Your task to perform on an android device: Go to accessibility settings Image 0: 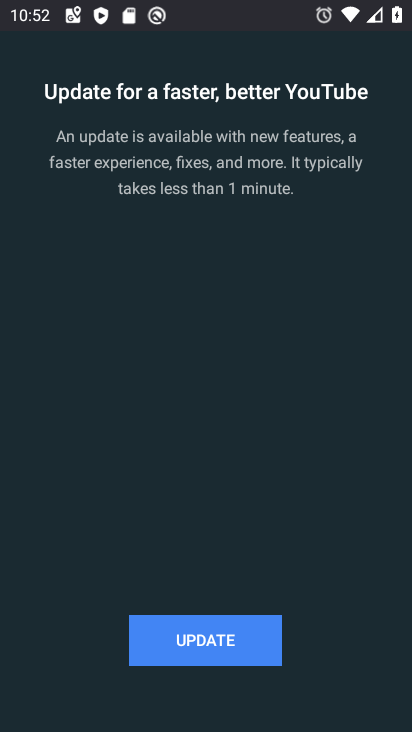
Step 0: press back button
Your task to perform on an android device: Go to accessibility settings Image 1: 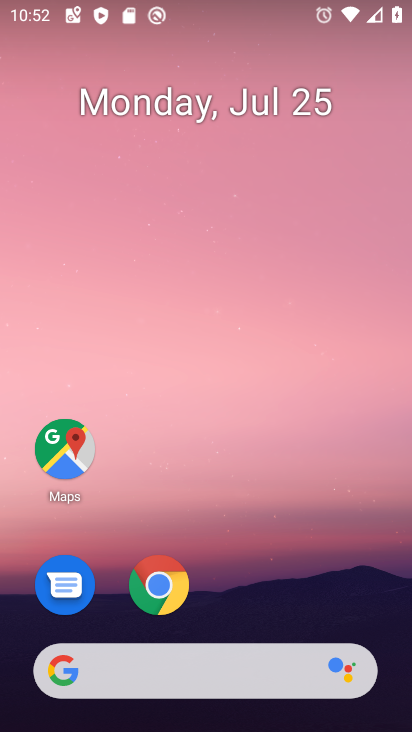
Step 1: drag from (187, 647) to (354, 80)
Your task to perform on an android device: Go to accessibility settings Image 2: 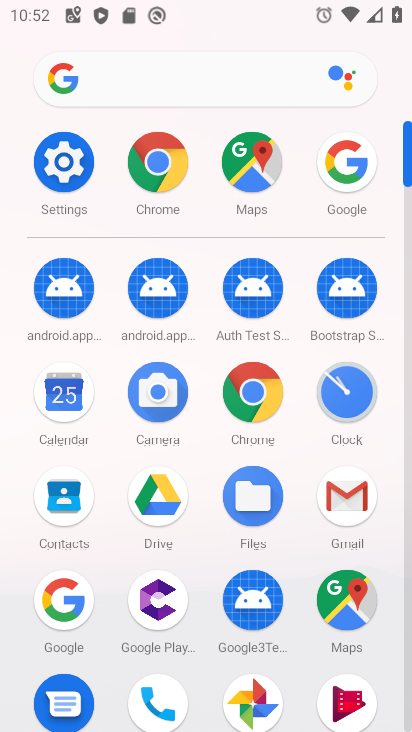
Step 2: click (75, 166)
Your task to perform on an android device: Go to accessibility settings Image 3: 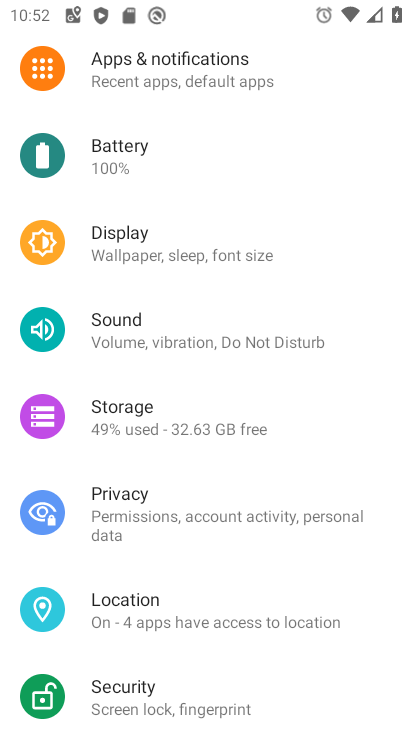
Step 3: drag from (199, 633) to (205, 249)
Your task to perform on an android device: Go to accessibility settings Image 4: 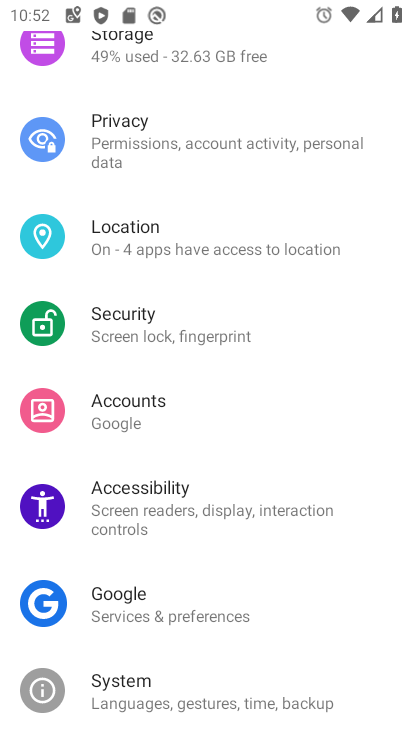
Step 4: click (167, 506)
Your task to perform on an android device: Go to accessibility settings Image 5: 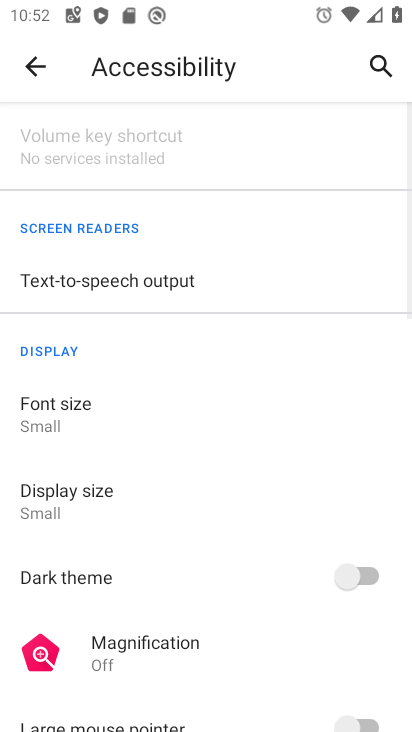
Step 5: task complete